Your task to perform on an android device: open device folders in google photos Image 0: 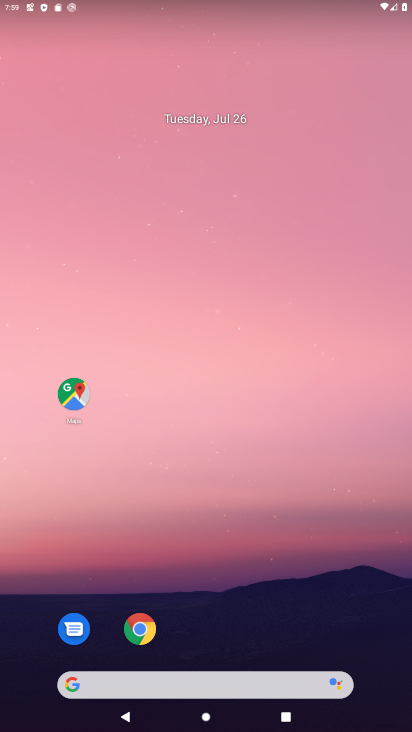
Step 0: press home button
Your task to perform on an android device: open device folders in google photos Image 1: 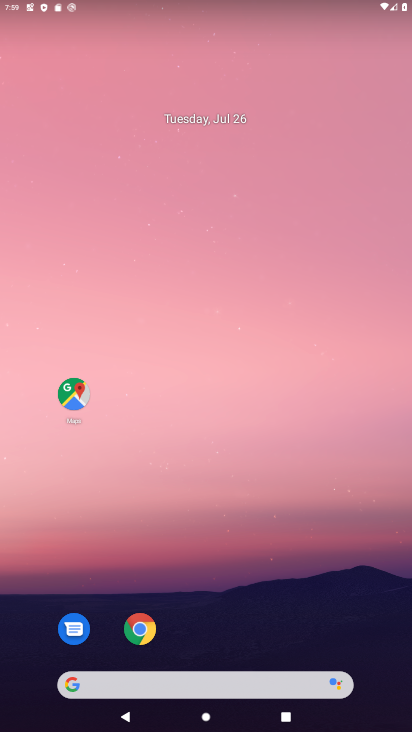
Step 1: drag from (210, 646) to (202, 121)
Your task to perform on an android device: open device folders in google photos Image 2: 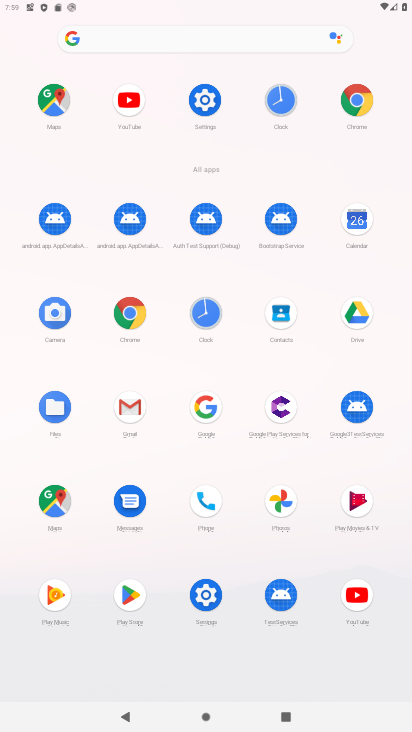
Step 2: click (279, 493)
Your task to perform on an android device: open device folders in google photos Image 3: 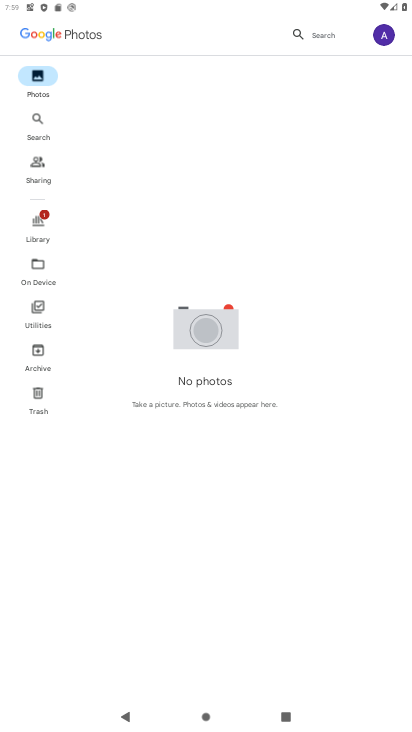
Step 3: click (299, 33)
Your task to perform on an android device: open device folders in google photos Image 4: 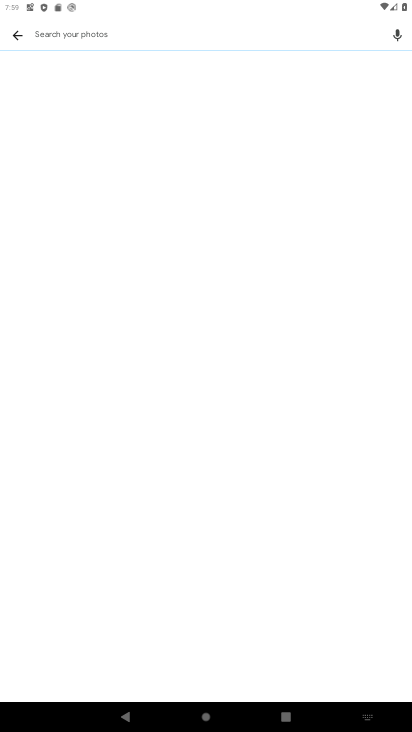
Step 4: type "device"
Your task to perform on an android device: open device folders in google photos Image 5: 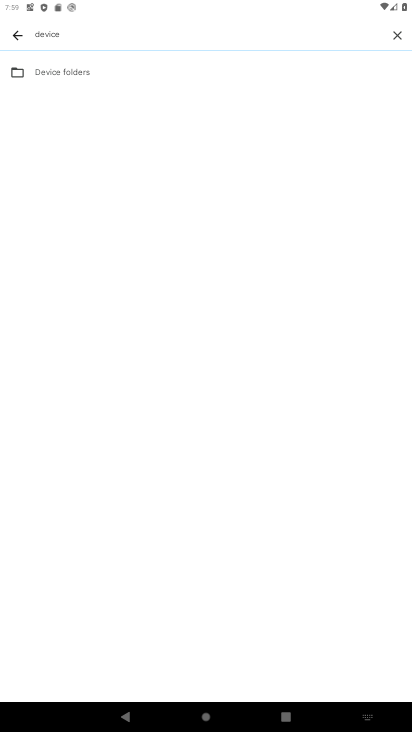
Step 5: click (102, 70)
Your task to perform on an android device: open device folders in google photos Image 6: 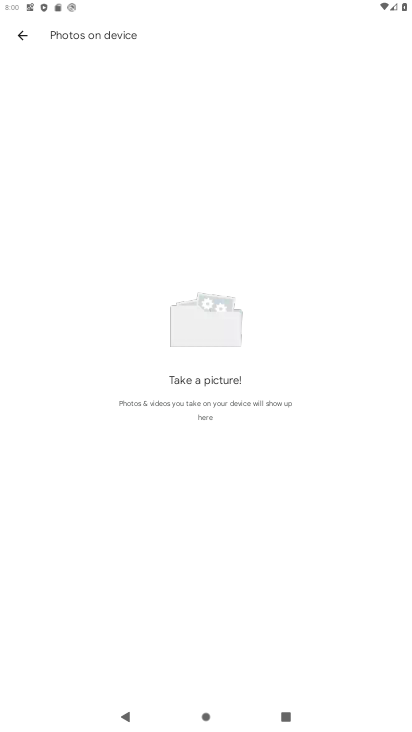
Step 6: task complete